Your task to perform on an android device: Open Google Image 0: 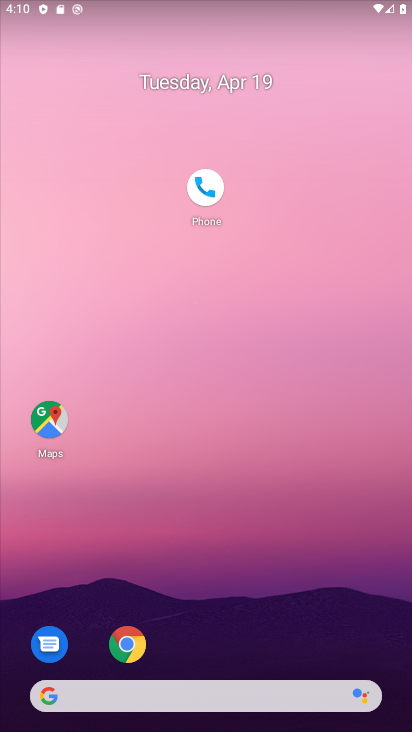
Step 0: drag from (323, 498) to (358, 437)
Your task to perform on an android device: Open Google Image 1: 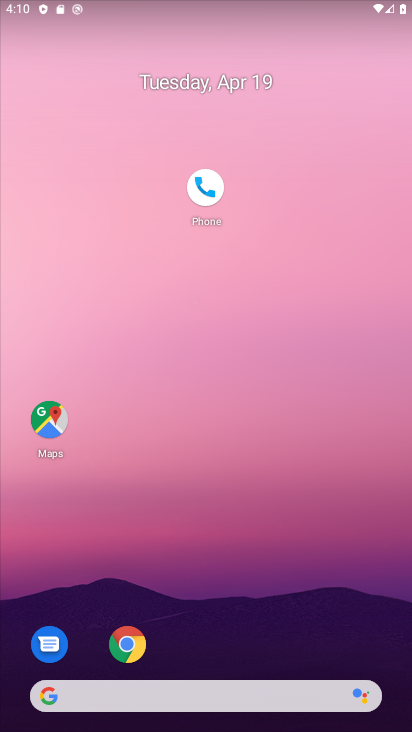
Step 1: click (144, 685)
Your task to perform on an android device: Open Google Image 2: 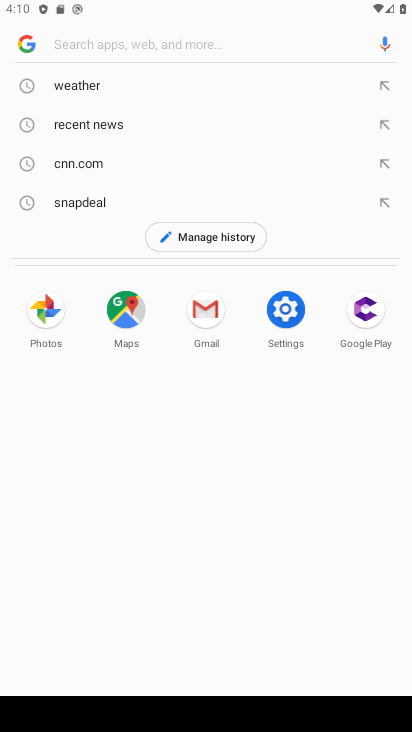
Step 2: task complete